Your task to perform on an android device: change timer sound Image 0: 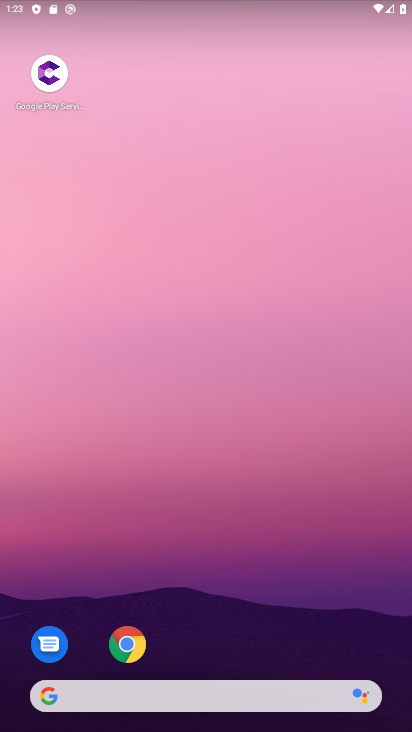
Step 0: drag from (272, 631) to (228, 157)
Your task to perform on an android device: change timer sound Image 1: 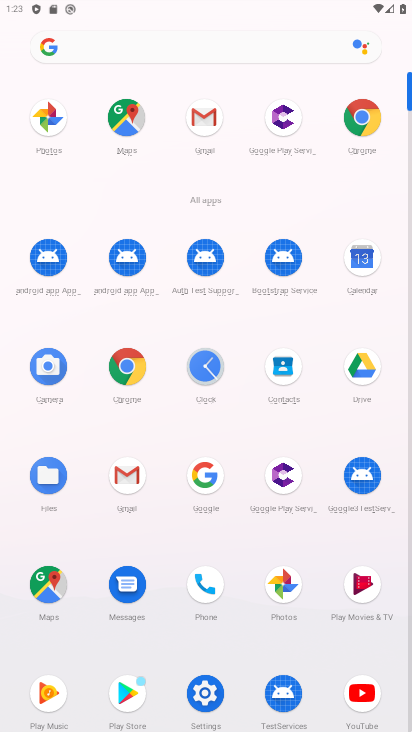
Step 1: click (196, 358)
Your task to perform on an android device: change timer sound Image 2: 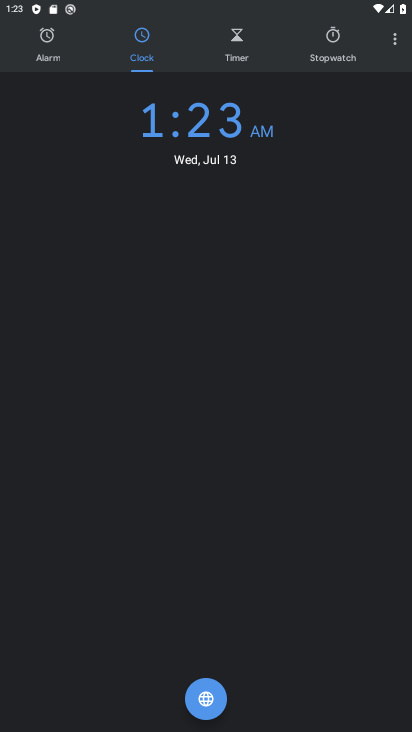
Step 2: click (398, 36)
Your task to perform on an android device: change timer sound Image 3: 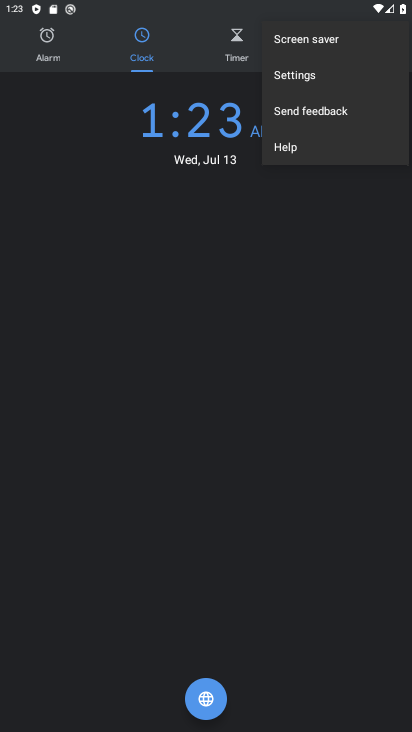
Step 3: click (300, 80)
Your task to perform on an android device: change timer sound Image 4: 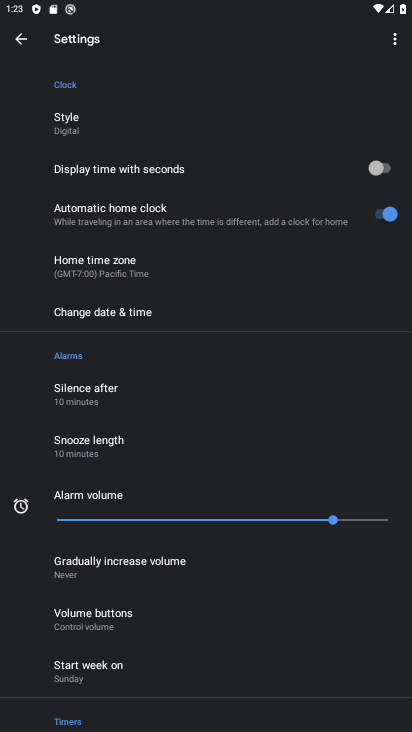
Step 4: drag from (154, 701) to (167, 449)
Your task to perform on an android device: change timer sound Image 5: 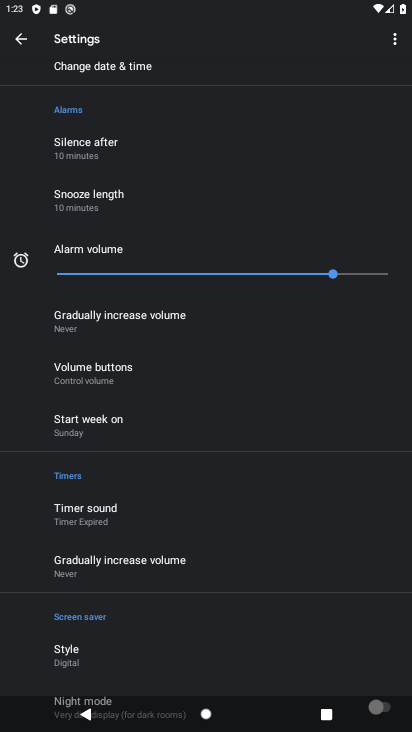
Step 5: click (128, 513)
Your task to perform on an android device: change timer sound Image 6: 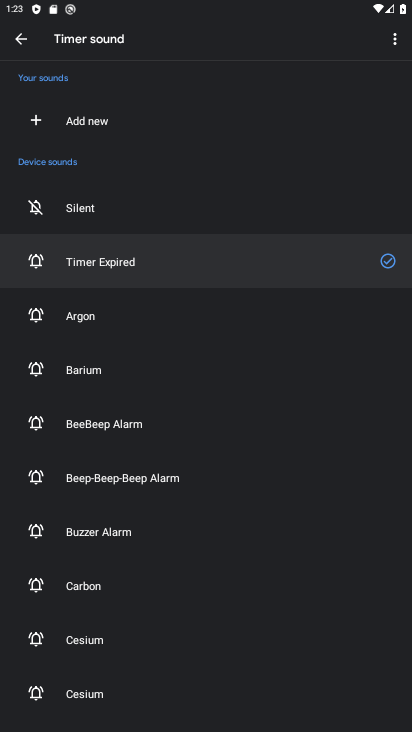
Step 6: click (129, 329)
Your task to perform on an android device: change timer sound Image 7: 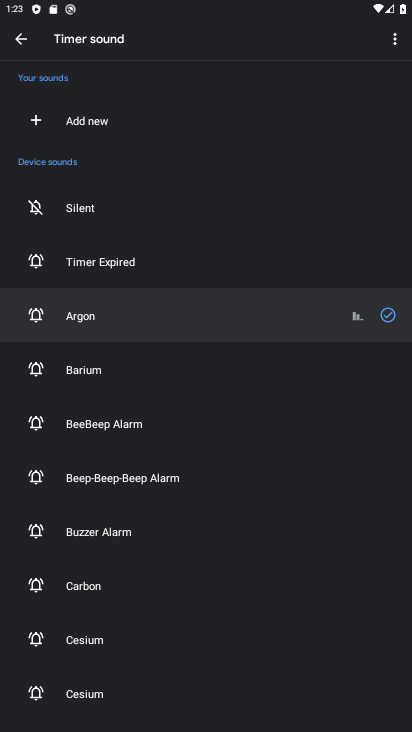
Step 7: task complete